Your task to perform on an android device: make emails show in primary in the gmail app Image 0: 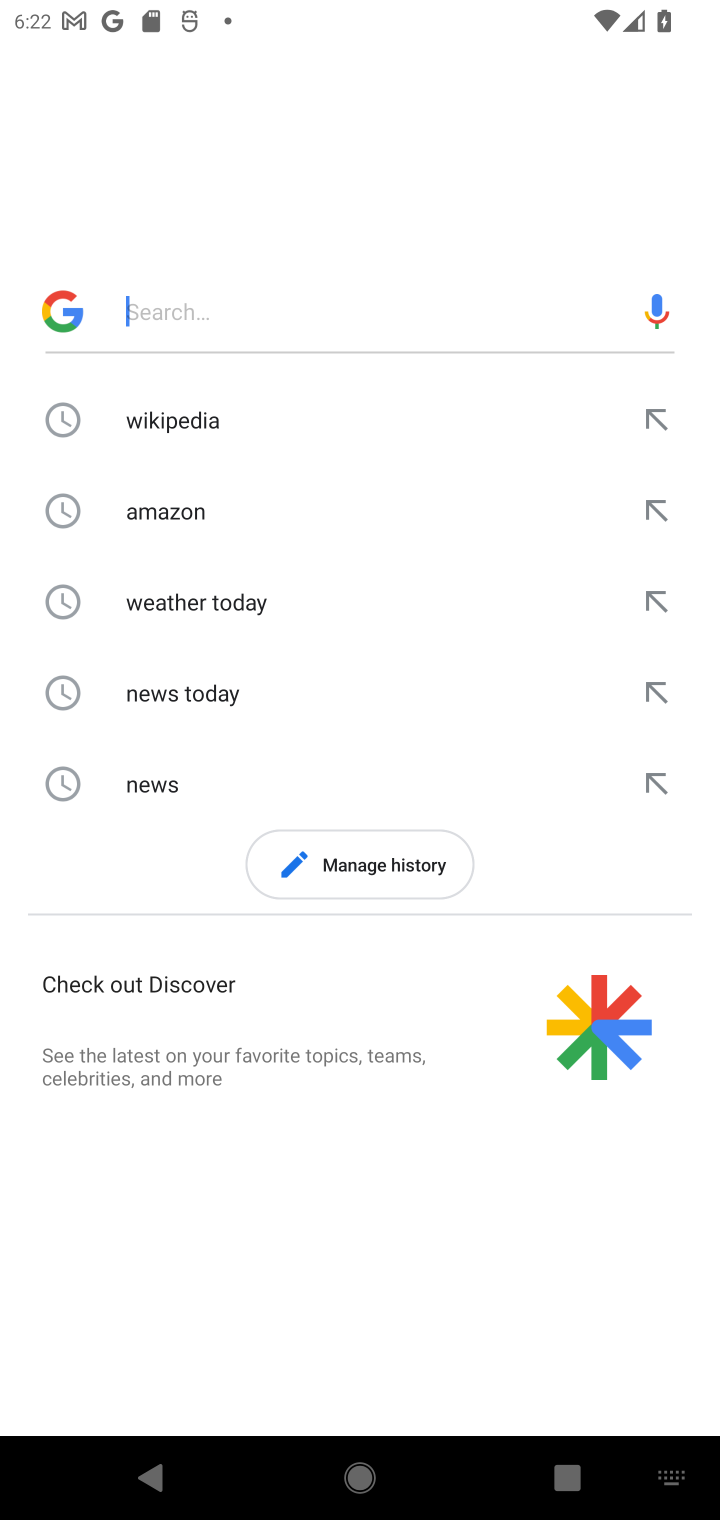
Step 0: press home button
Your task to perform on an android device: make emails show in primary in the gmail app Image 1: 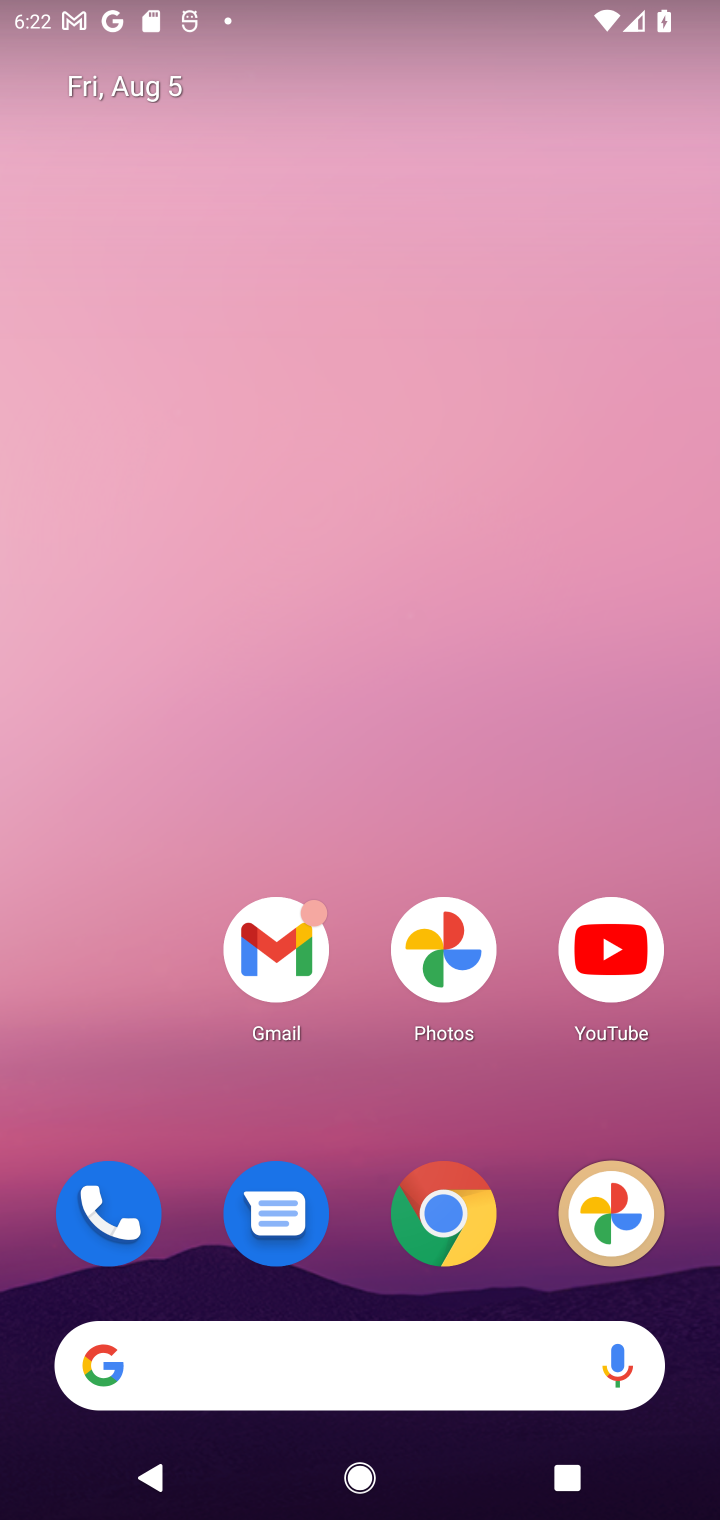
Step 1: click (266, 916)
Your task to perform on an android device: make emails show in primary in the gmail app Image 2: 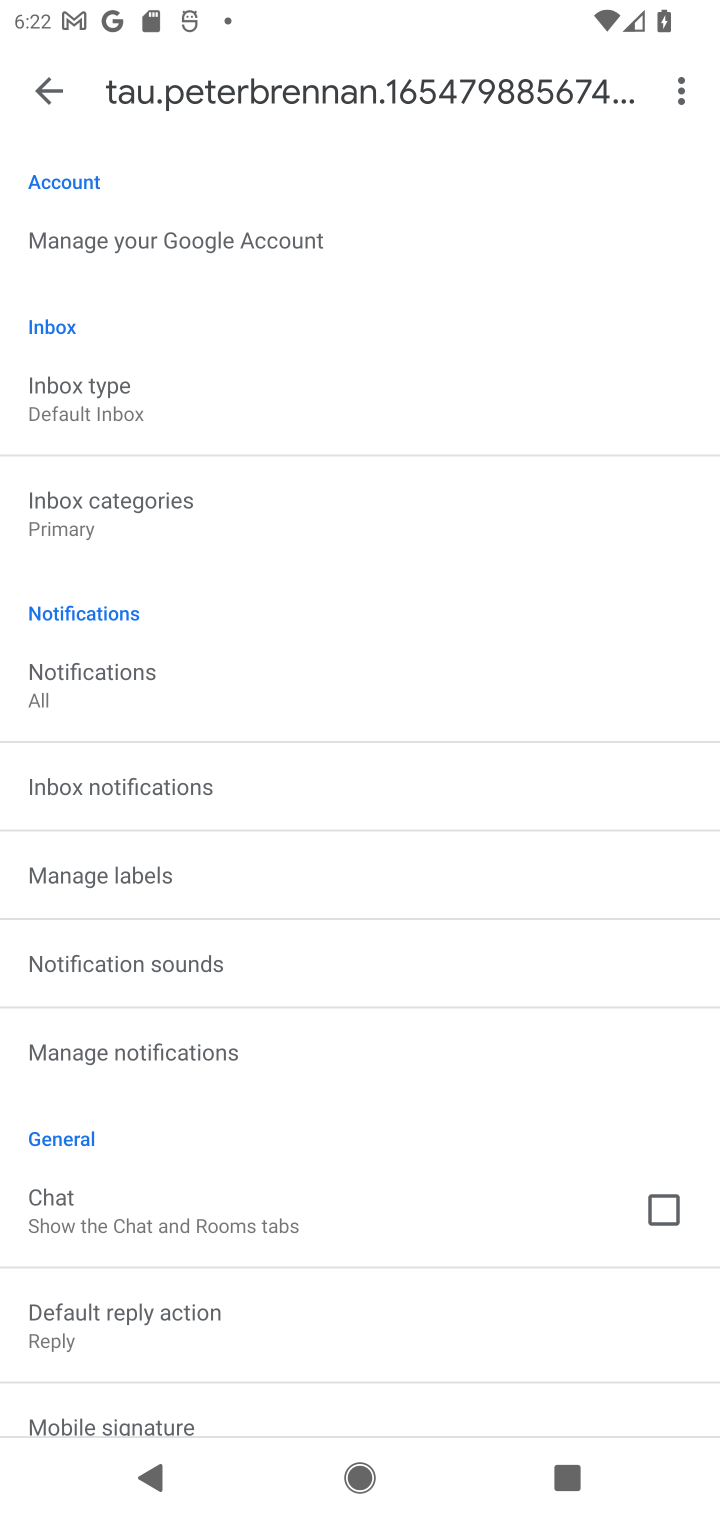
Step 2: task complete